Your task to perform on an android device: Go to Google maps Image 0: 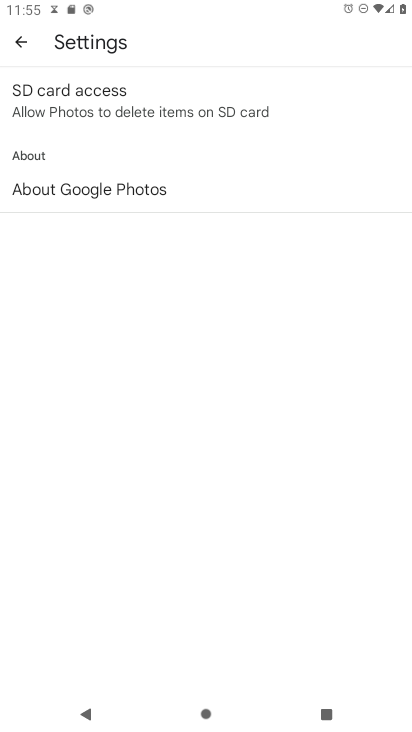
Step 0: press home button
Your task to perform on an android device: Go to Google maps Image 1: 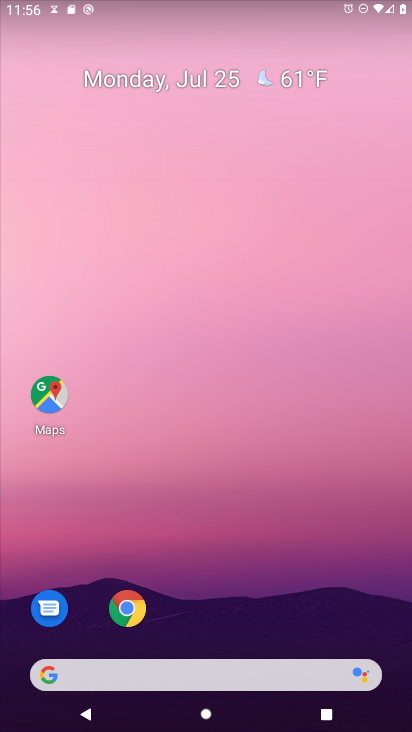
Step 1: click (48, 395)
Your task to perform on an android device: Go to Google maps Image 2: 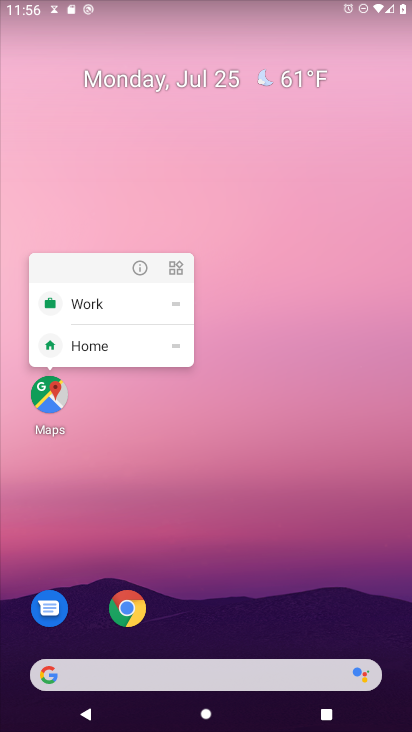
Step 2: click (48, 395)
Your task to perform on an android device: Go to Google maps Image 3: 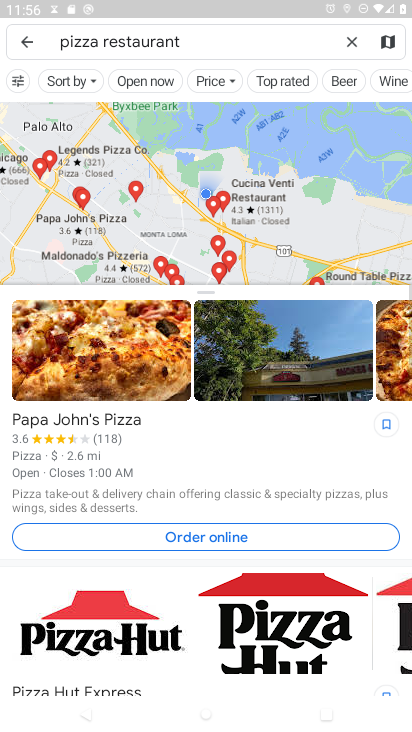
Step 3: click (351, 41)
Your task to perform on an android device: Go to Google maps Image 4: 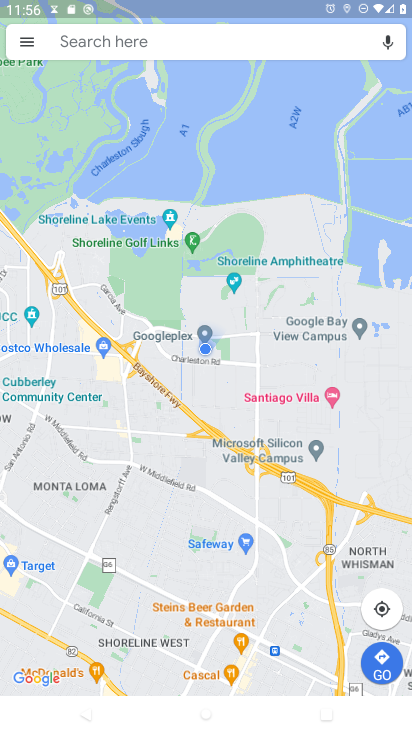
Step 4: task complete